Your task to perform on an android device: Open the Play Movies app and select the watchlist tab. Image 0: 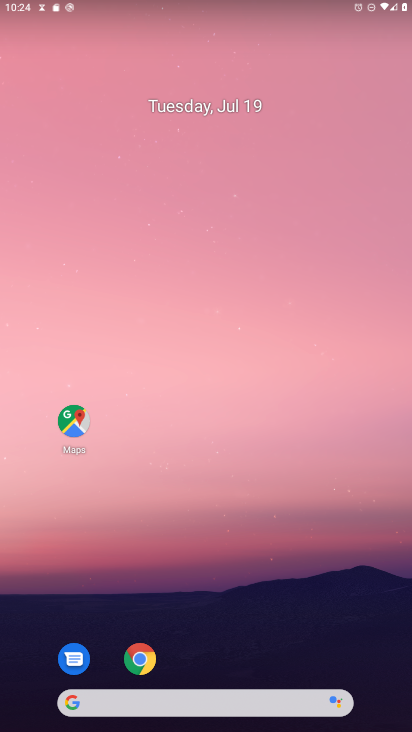
Step 0: drag from (230, 712) to (321, 95)
Your task to perform on an android device: Open the Play Movies app and select the watchlist tab. Image 1: 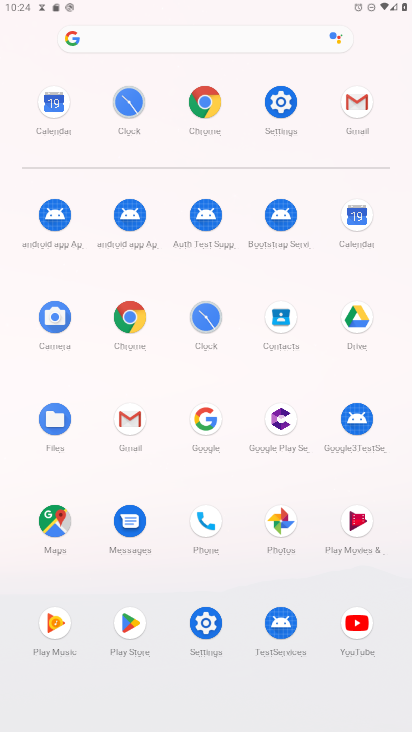
Step 1: click (361, 516)
Your task to perform on an android device: Open the Play Movies app and select the watchlist tab. Image 2: 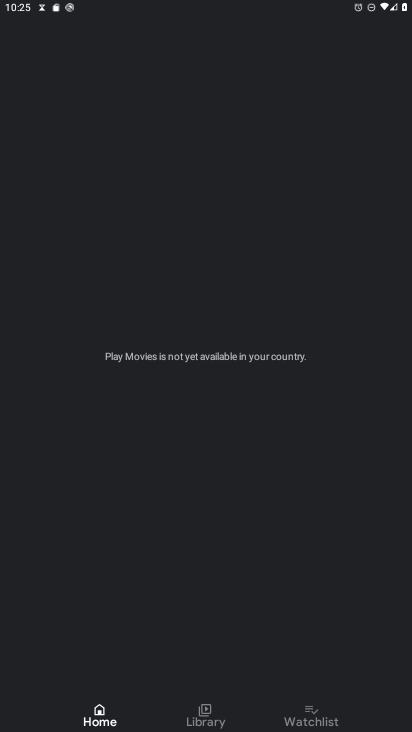
Step 2: click (330, 726)
Your task to perform on an android device: Open the Play Movies app and select the watchlist tab. Image 3: 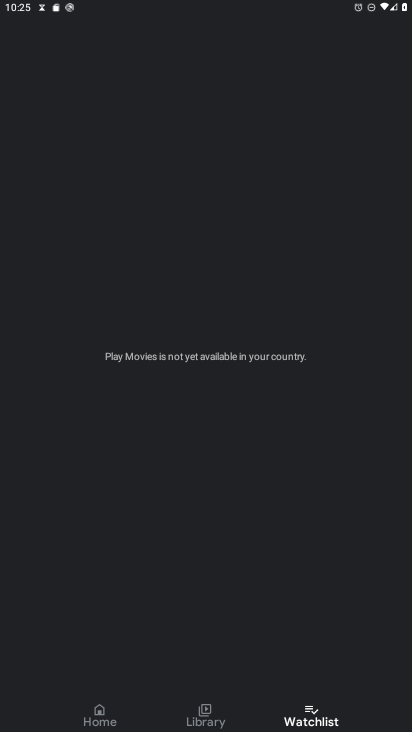
Step 3: task complete